Your task to perform on an android device: open wifi settings Image 0: 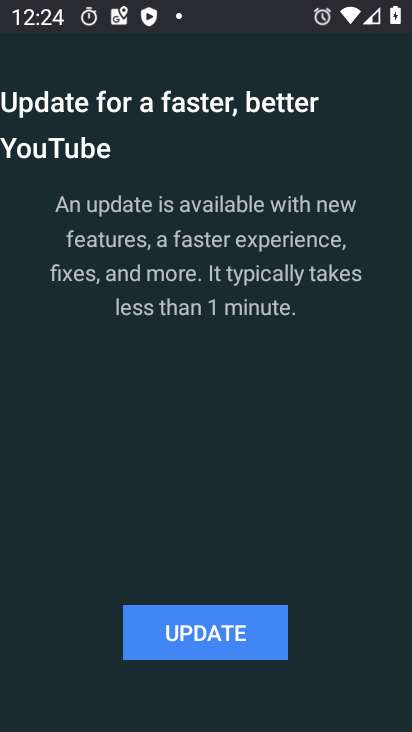
Step 0: press home button
Your task to perform on an android device: open wifi settings Image 1: 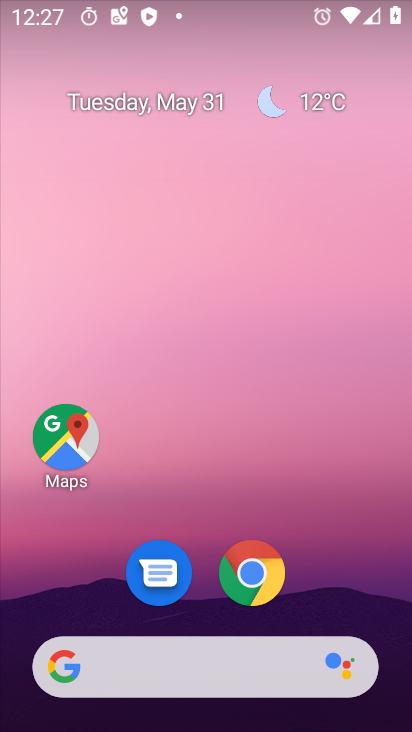
Step 1: drag from (332, 551) to (296, 10)
Your task to perform on an android device: open wifi settings Image 2: 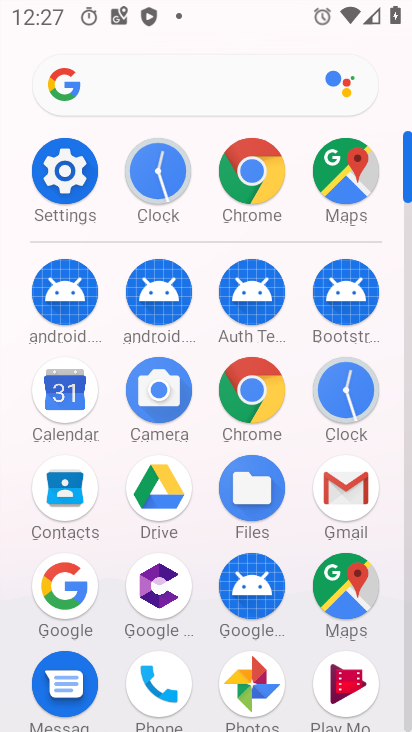
Step 2: click (79, 165)
Your task to perform on an android device: open wifi settings Image 3: 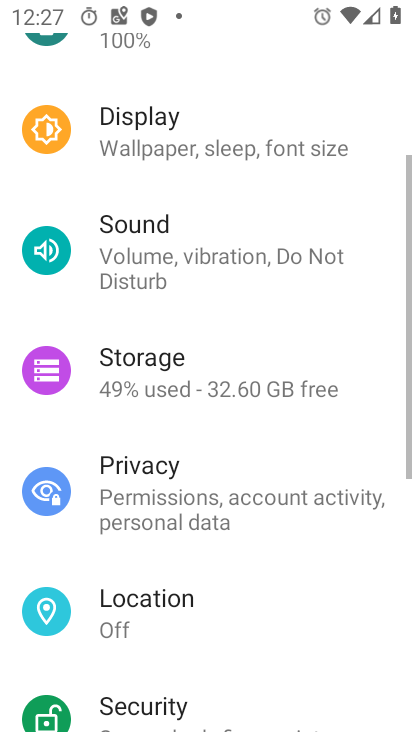
Step 3: drag from (221, 291) to (270, 616)
Your task to perform on an android device: open wifi settings Image 4: 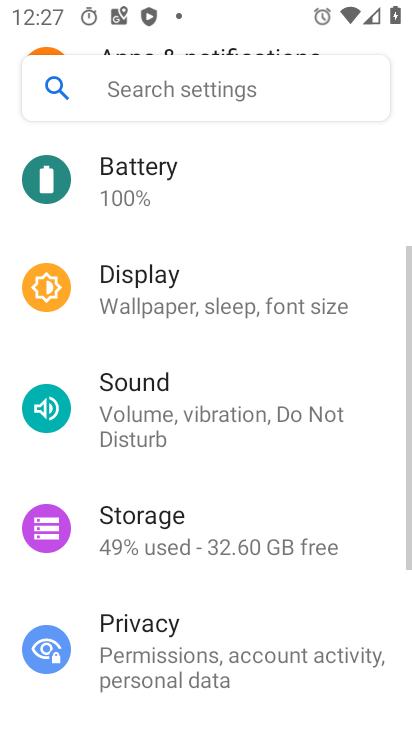
Step 4: drag from (203, 243) to (280, 697)
Your task to perform on an android device: open wifi settings Image 5: 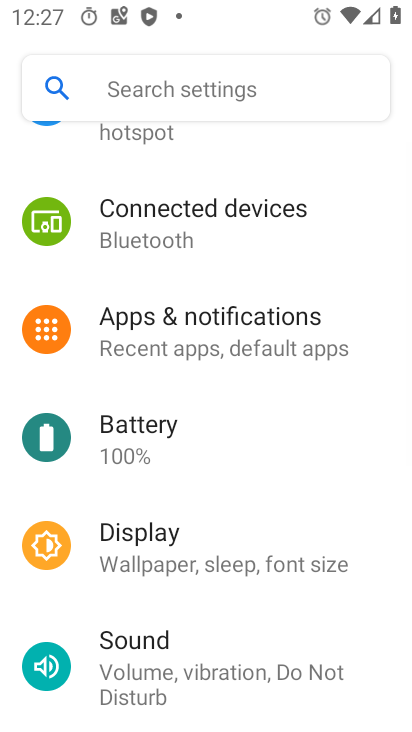
Step 5: drag from (178, 232) to (225, 637)
Your task to perform on an android device: open wifi settings Image 6: 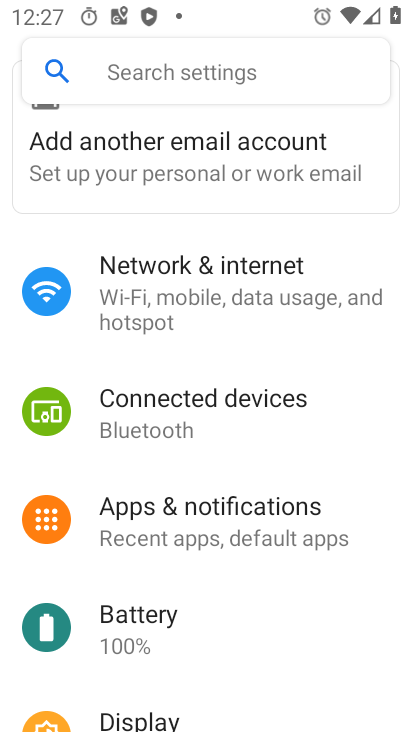
Step 6: drag from (161, 228) to (214, 580)
Your task to perform on an android device: open wifi settings Image 7: 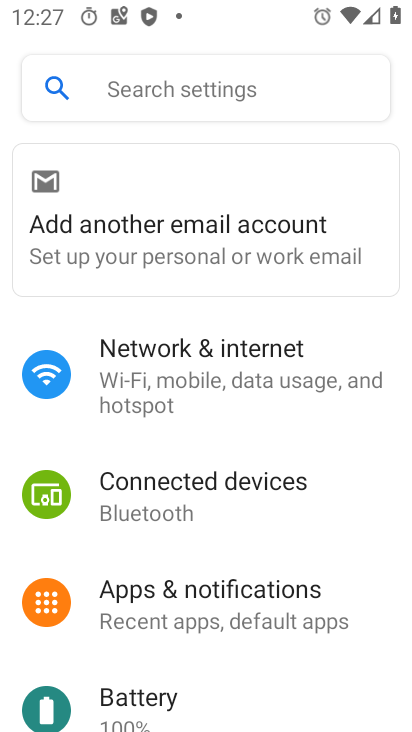
Step 7: click (160, 373)
Your task to perform on an android device: open wifi settings Image 8: 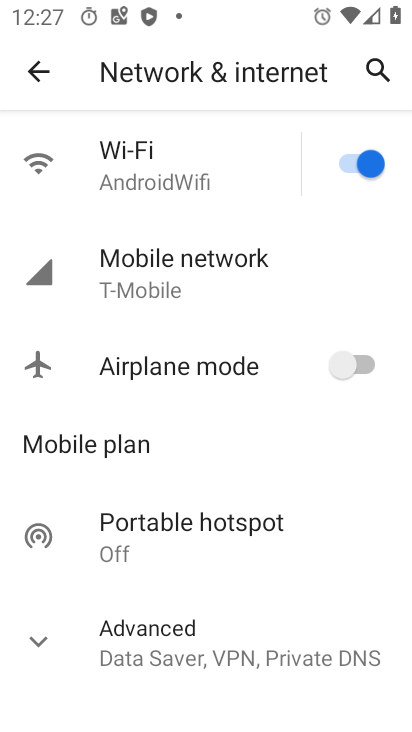
Step 8: click (132, 189)
Your task to perform on an android device: open wifi settings Image 9: 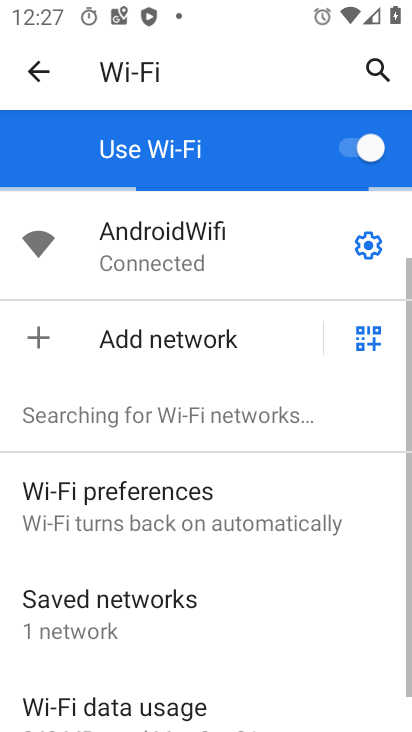
Step 9: task complete